Your task to perform on an android device: Open location settings Image 0: 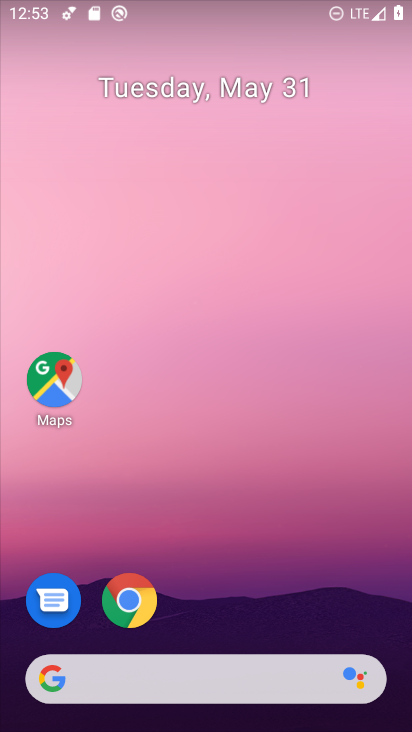
Step 0: drag from (242, 721) to (238, 58)
Your task to perform on an android device: Open location settings Image 1: 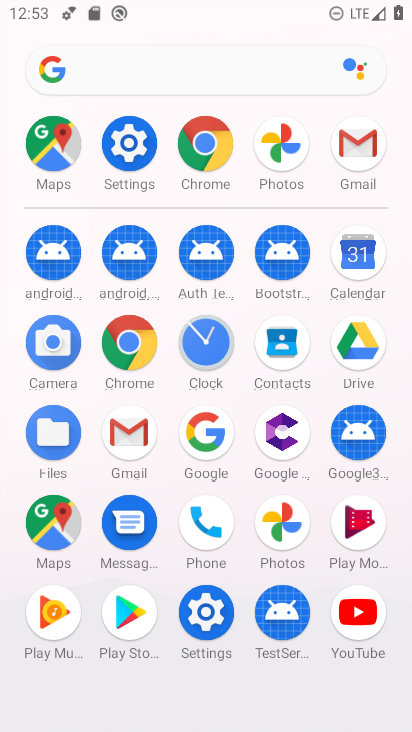
Step 1: click (128, 133)
Your task to perform on an android device: Open location settings Image 2: 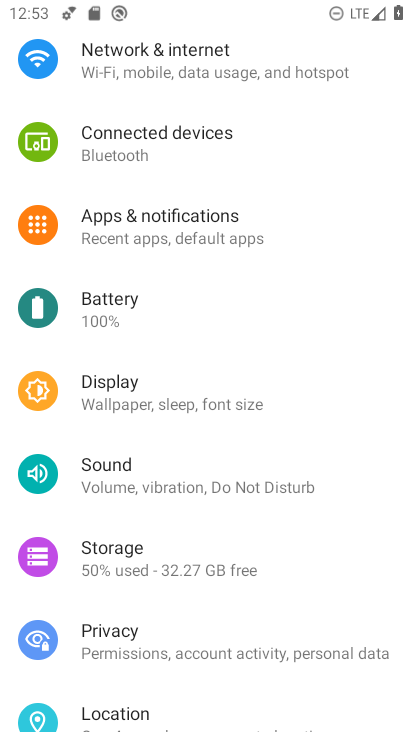
Step 2: click (115, 707)
Your task to perform on an android device: Open location settings Image 3: 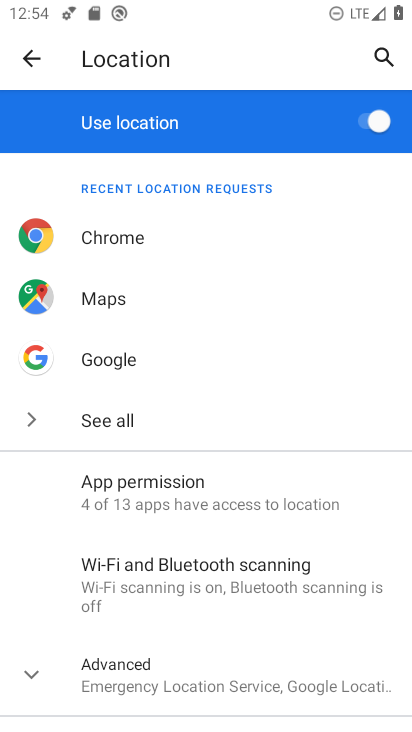
Step 3: task complete